Your task to perform on an android device: Open Google Maps Image 0: 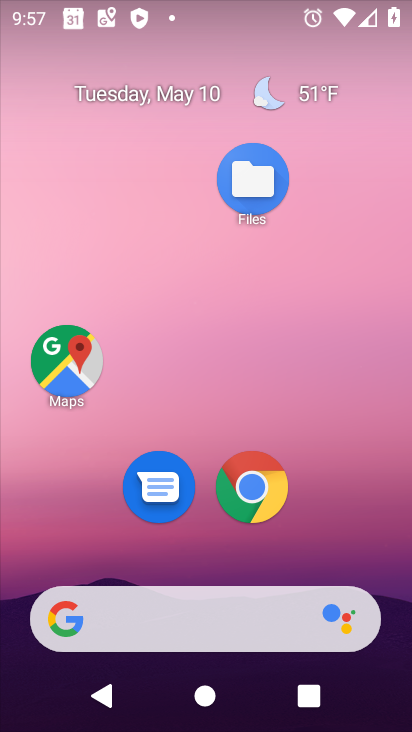
Step 0: click (74, 360)
Your task to perform on an android device: Open Google Maps Image 1: 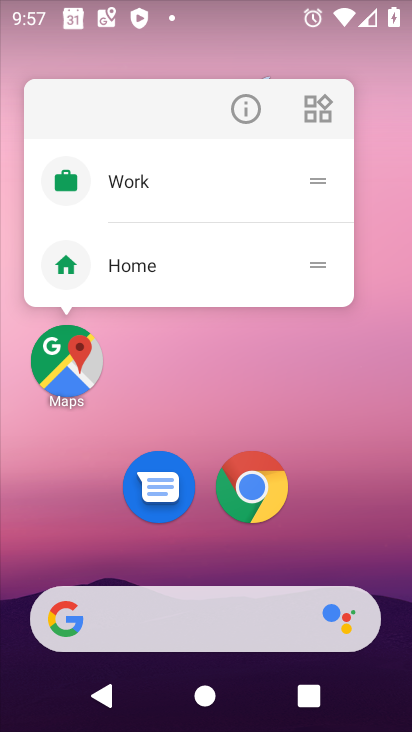
Step 1: click (66, 366)
Your task to perform on an android device: Open Google Maps Image 2: 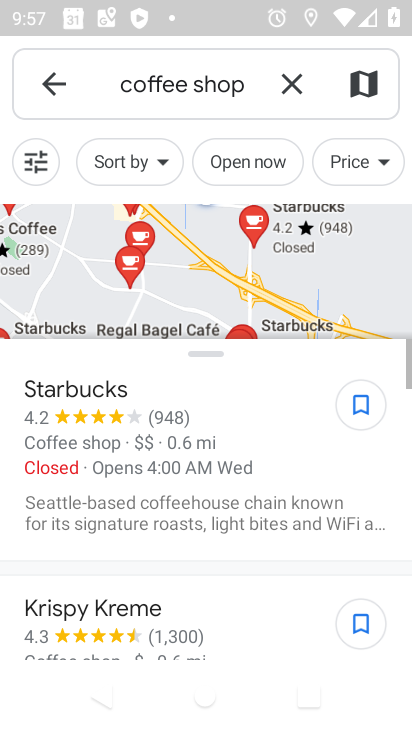
Step 2: task complete